Your task to perform on an android device: Go to Maps Image 0: 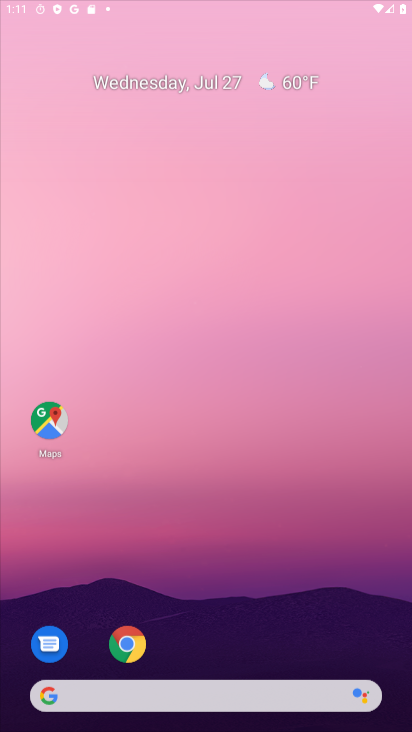
Step 0: click (249, 97)
Your task to perform on an android device: Go to Maps Image 1: 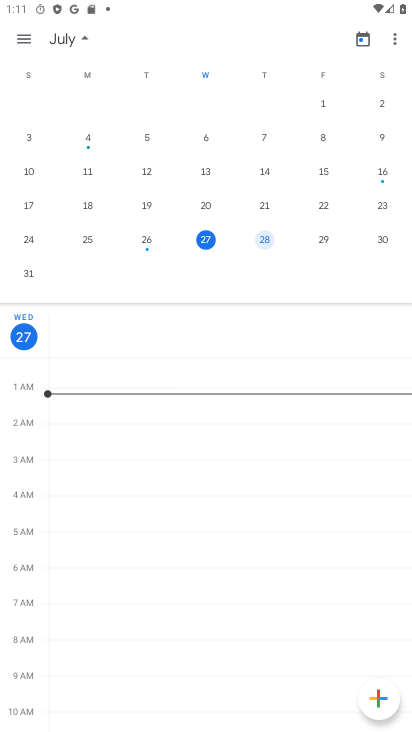
Step 1: press home button
Your task to perform on an android device: Go to Maps Image 2: 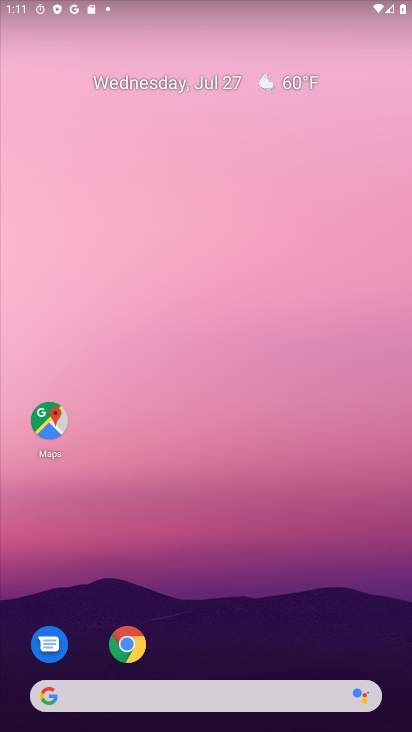
Step 2: drag from (190, 659) to (237, 69)
Your task to perform on an android device: Go to Maps Image 3: 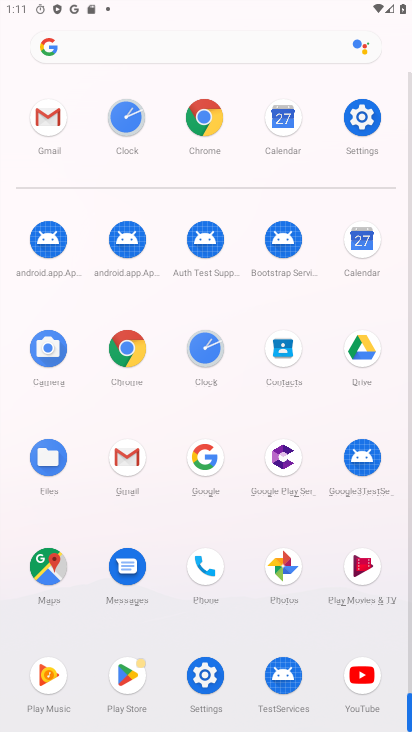
Step 3: click (46, 565)
Your task to perform on an android device: Go to Maps Image 4: 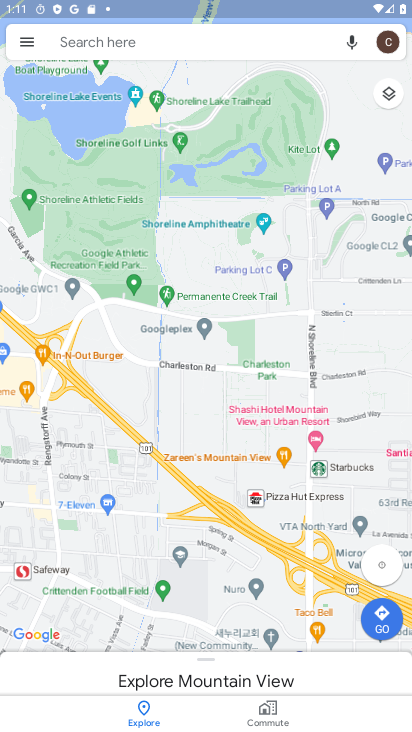
Step 4: task complete